Your task to perform on an android device: turn on improve location accuracy Image 0: 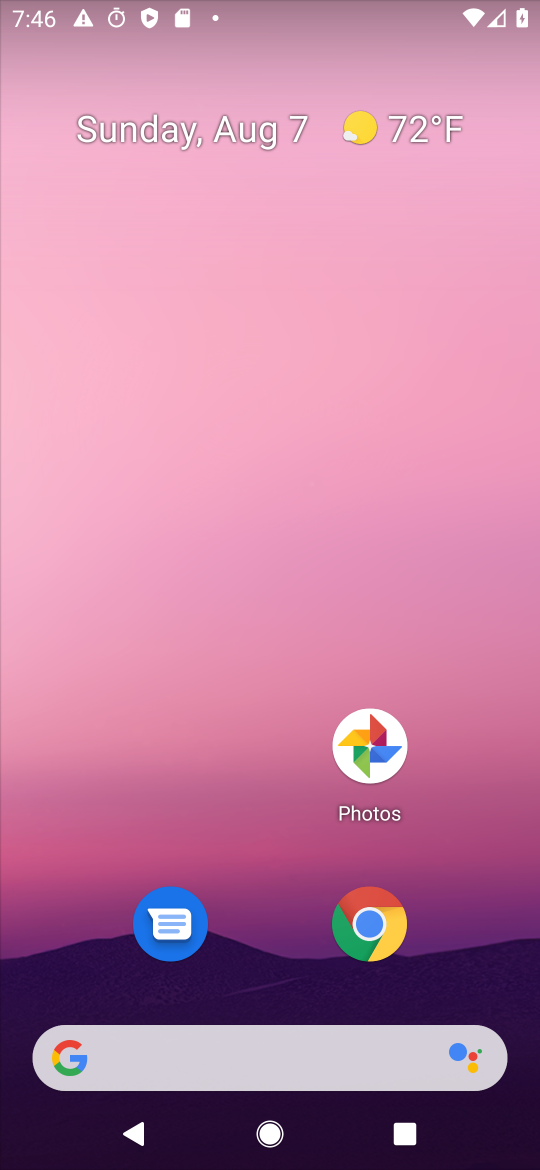
Step 0: drag from (323, 1064) to (314, 356)
Your task to perform on an android device: turn on improve location accuracy Image 1: 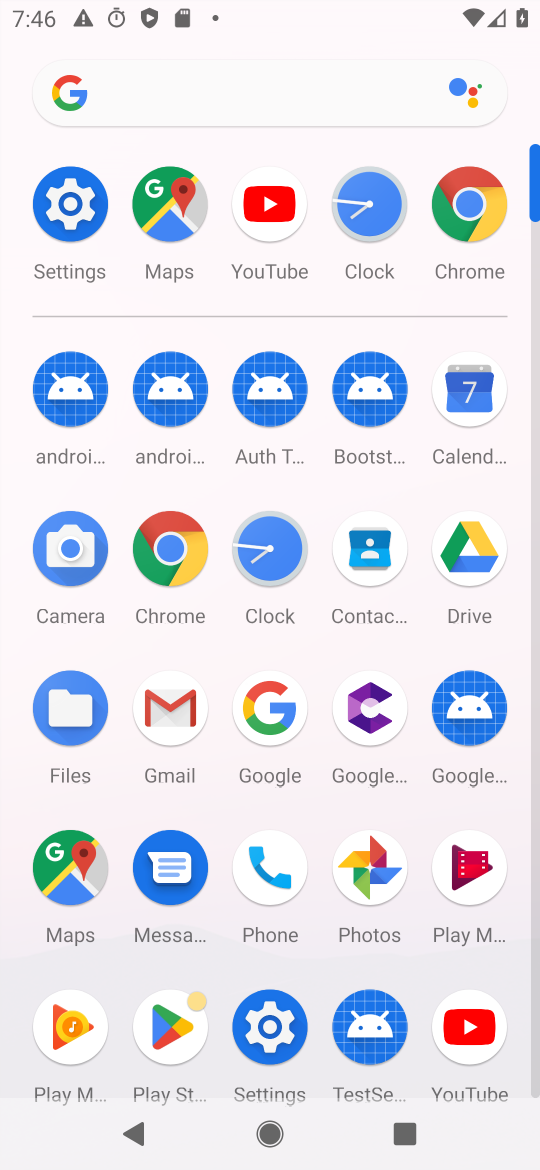
Step 1: click (81, 194)
Your task to perform on an android device: turn on improve location accuracy Image 2: 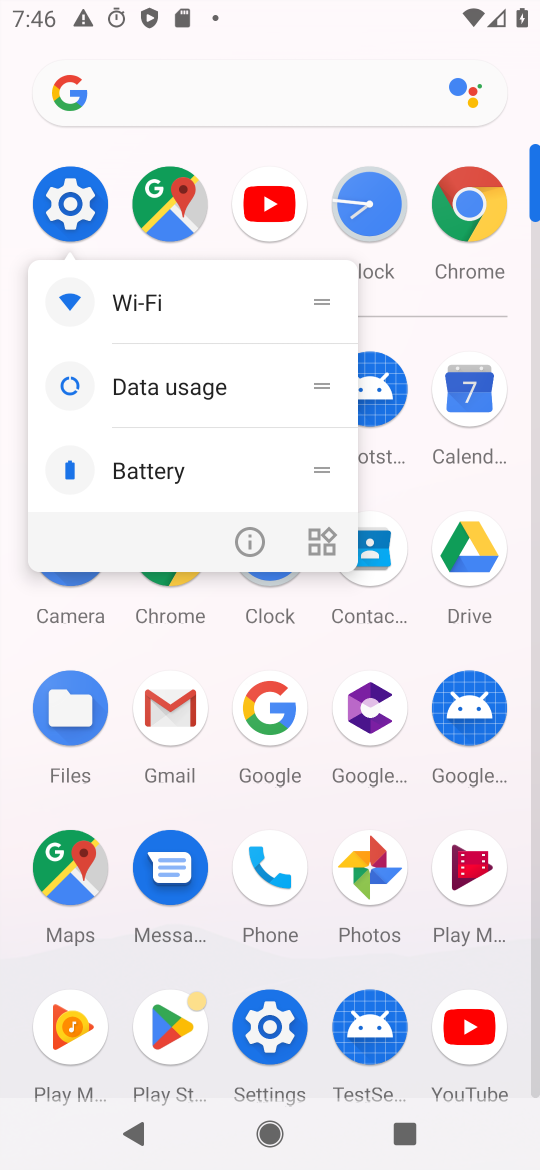
Step 2: click (81, 194)
Your task to perform on an android device: turn on improve location accuracy Image 3: 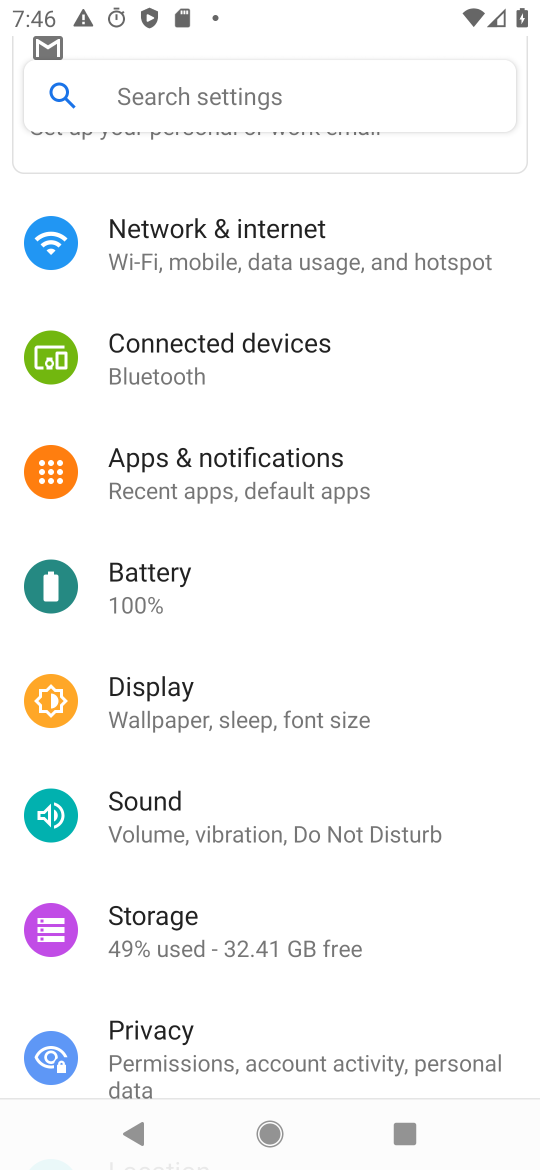
Step 3: click (229, 112)
Your task to perform on an android device: turn on improve location accuracy Image 4: 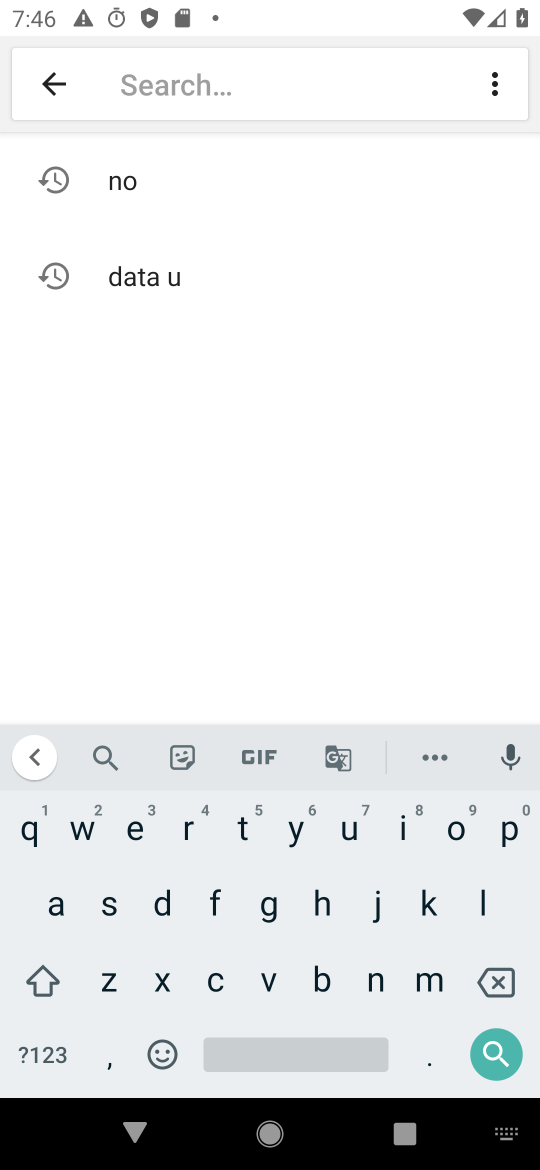
Step 4: click (485, 892)
Your task to perform on an android device: turn on improve location accuracy Image 5: 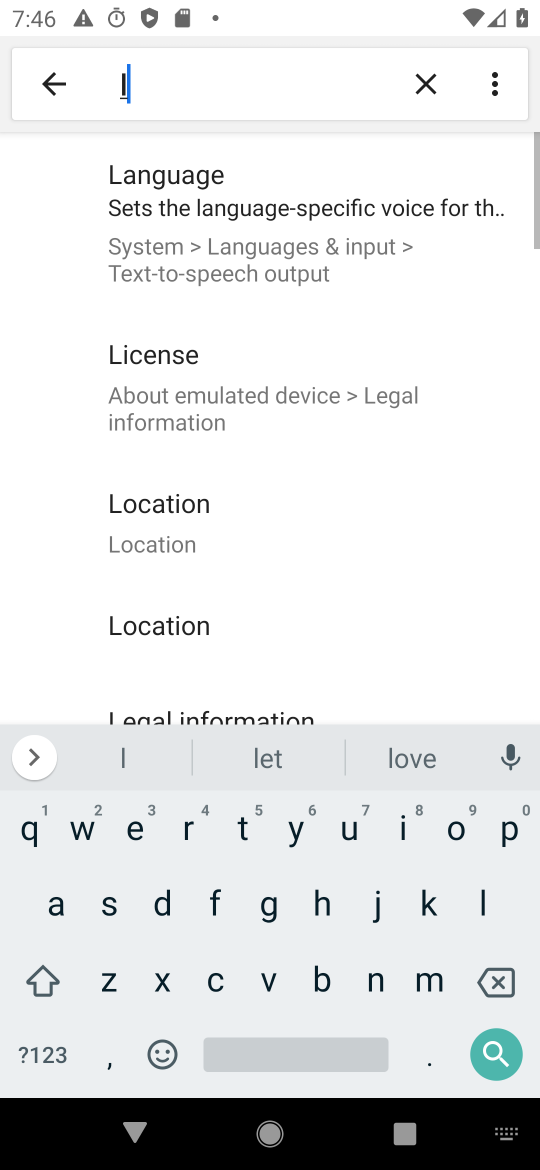
Step 5: click (455, 832)
Your task to perform on an android device: turn on improve location accuracy Image 6: 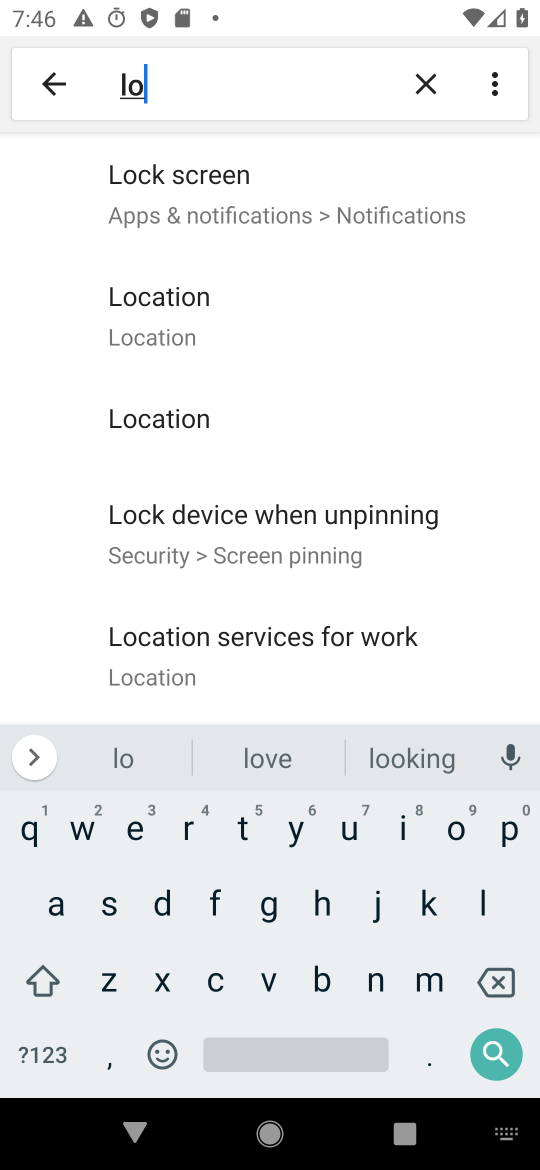
Step 6: click (158, 331)
Your task to perform on an android device: turn on improve location accuracy Image 7: 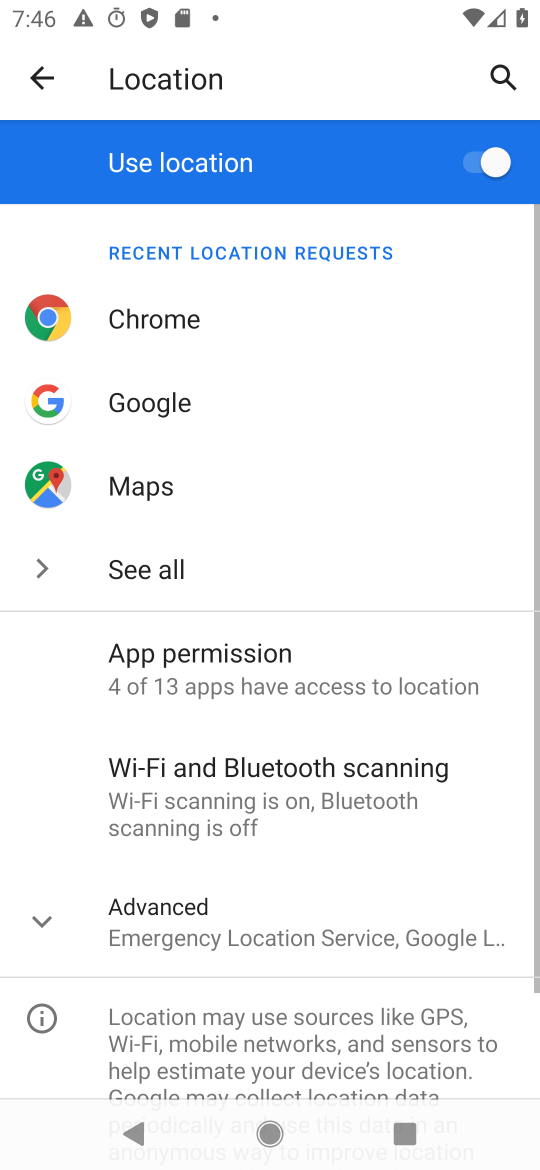
Step 7: click (102, 898)
Your task to perform on an android device: turn on improve location accuracy Image 8: 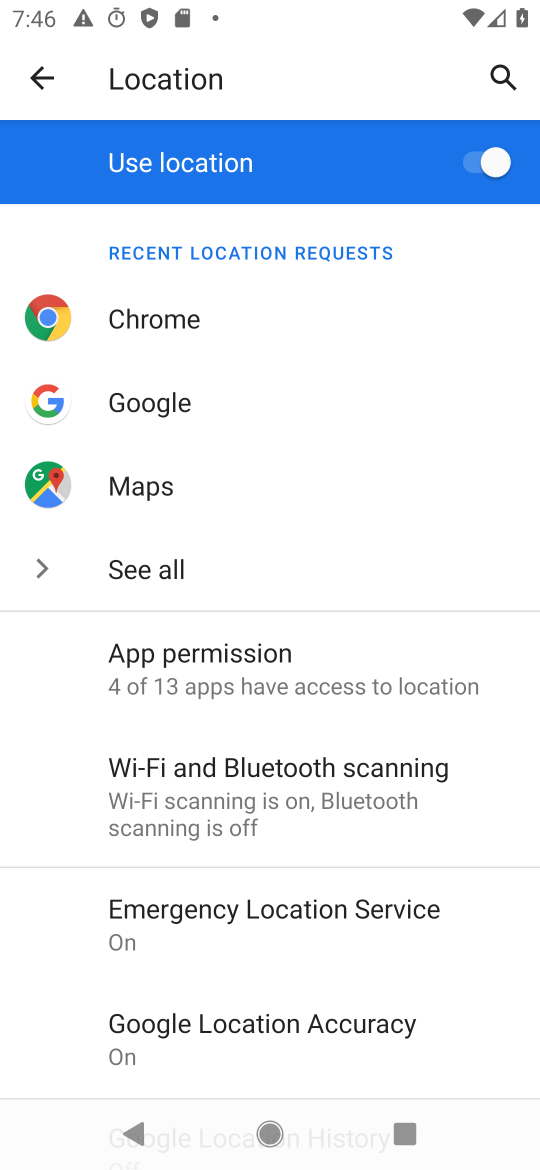
Step 8: click (302, 1026)
Your task to perform on an android device: turn on improve location accuracy Image 9: 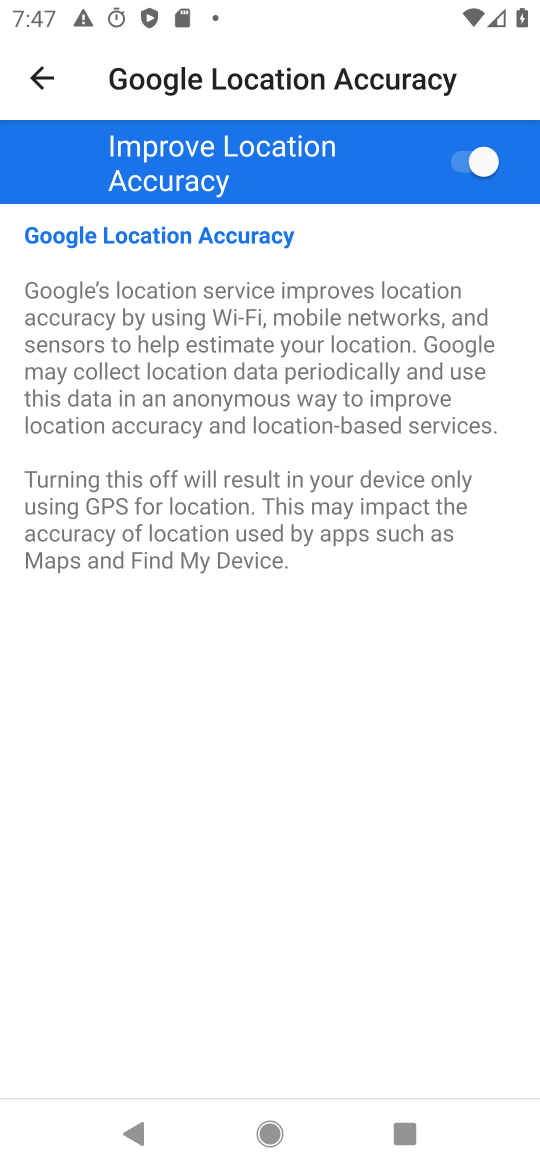
Step 9: task complete